Your task to perform on an android device: set an alarm Image 0: 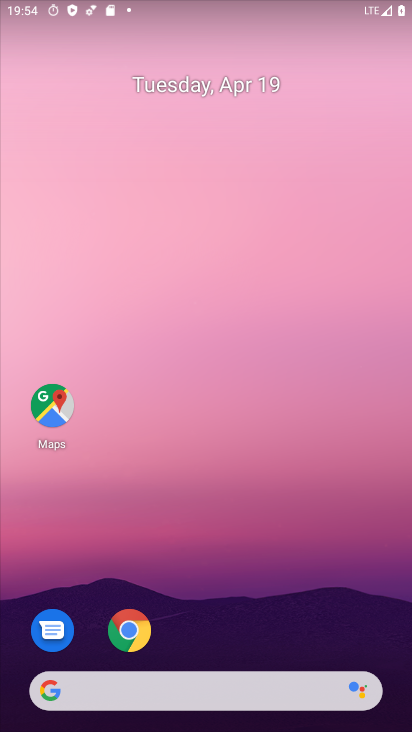
Step 0: drag from (232, 661) to (216, 0)
Your task to perform on an android device: set an alarm Image 1: 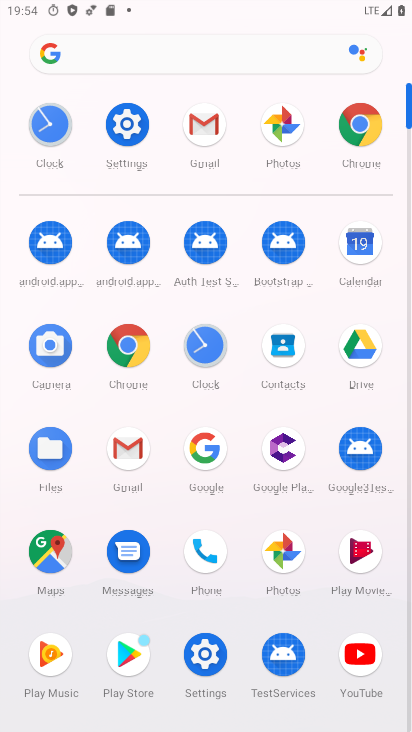
Step 1: click (197, 359)
Your task to perform on an android device: set an alarm Image 2: 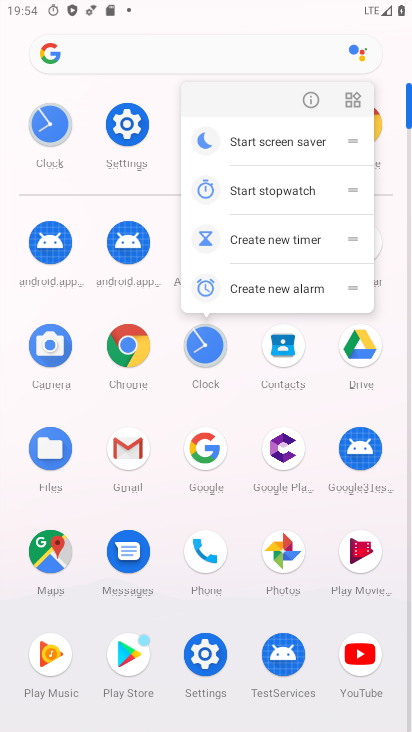
Step 2: click (197, 359)
Your task to perform on an android device: set an alarm Image 3: 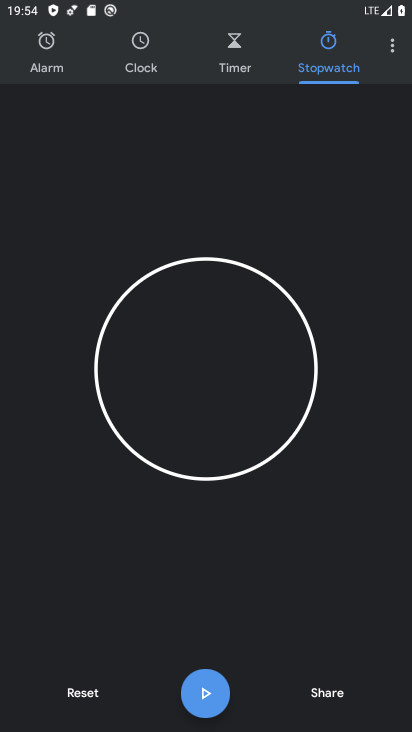
Step 3: click (37, 43)
Your task to perform on an android device: set an alarm Image 4: 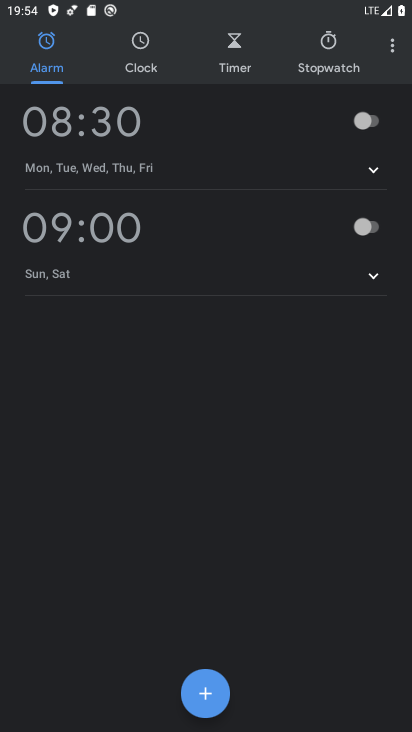
Step 4: click (196, 691)
Your task to perform on an android device: set an alarm Image 5: 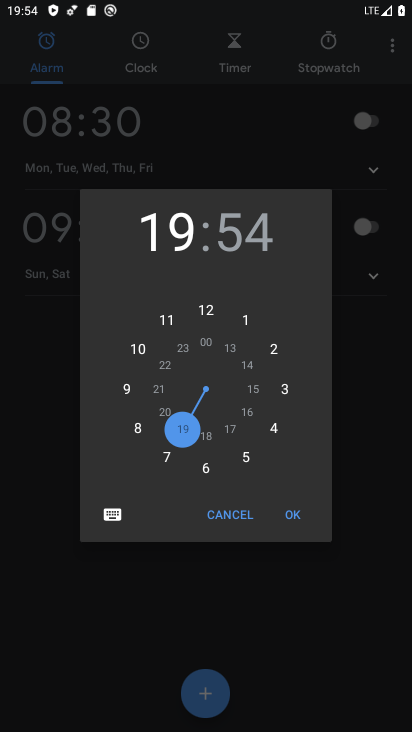
Step 5: click (294, 510)
Your task to perform on an android device: set an alarm Image 6: 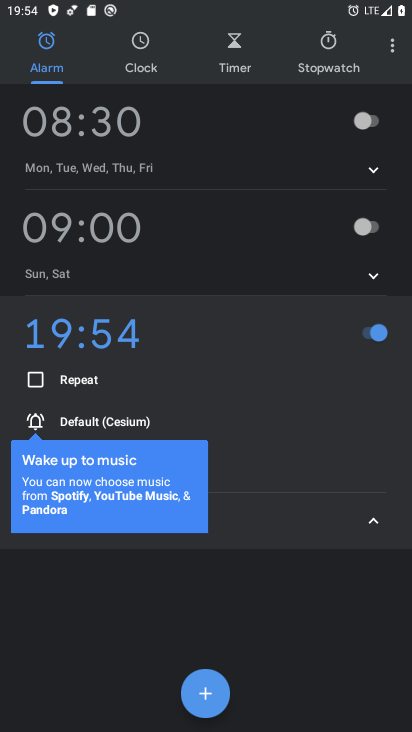
Step 6: click (294, 510)
Your task to perform on an android device: set an alarm Image 7: 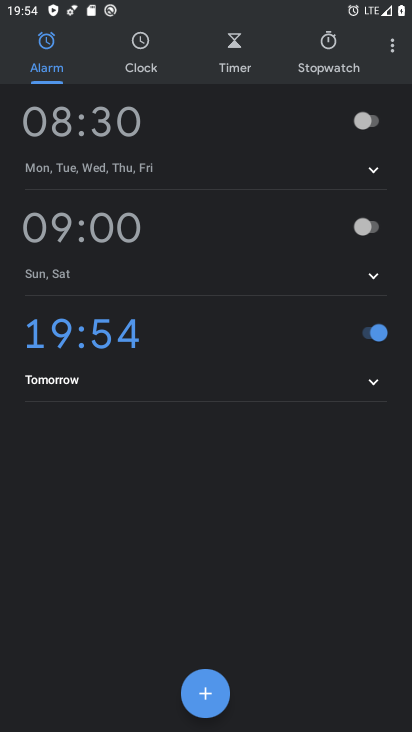
Step 7: task complete